Your task to perform on an android device: Search for sushi restaurants on Maps Image 0: 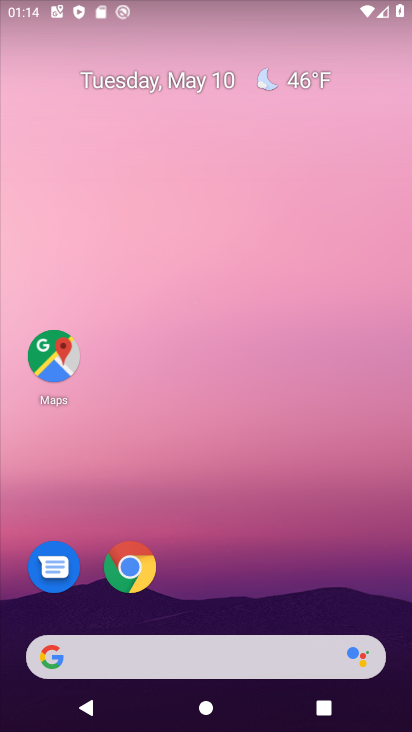
Step 0: click (64, 371)
Your task to perform on an android device: Search for sushi restaurants on Maps Image 1: 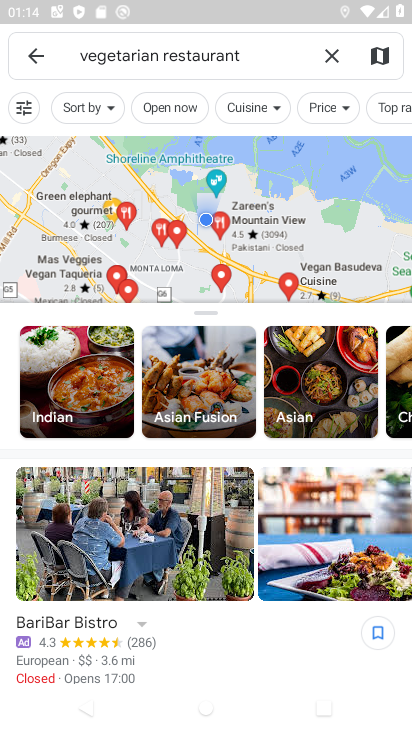
Step 1: click (332, 56)
Your task to perform on an android device: Search for sushi restaurants on Maps Image 2: 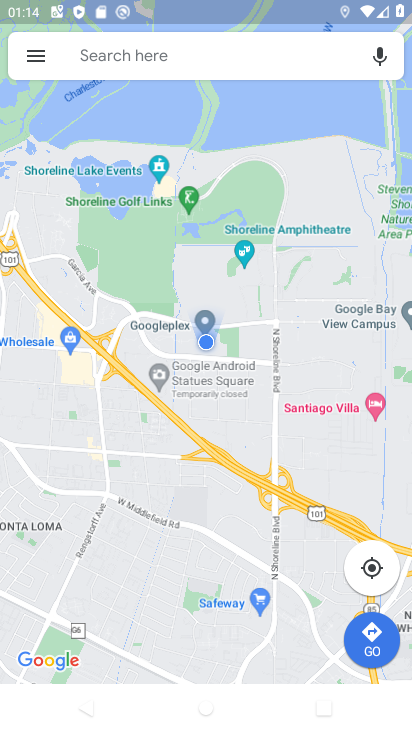
Step 2: click (161, 60)
Your task to perform on an android device: Search for sushi restaurants on Maps Image 3: 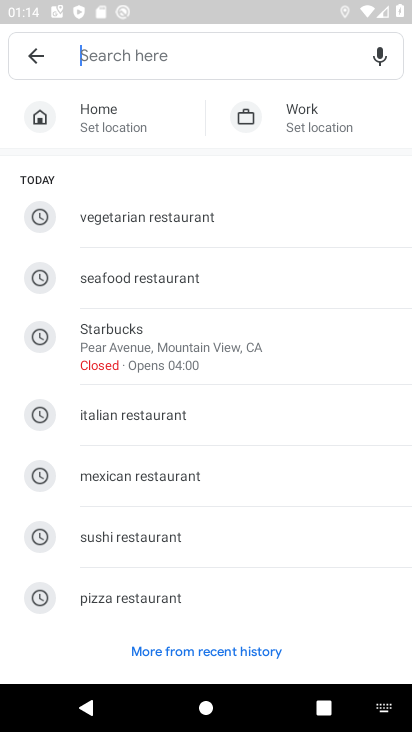
Step 3: click (177, 537)
Your task to perform on an android device: Search for sushi restaurants on Maps Image 4: 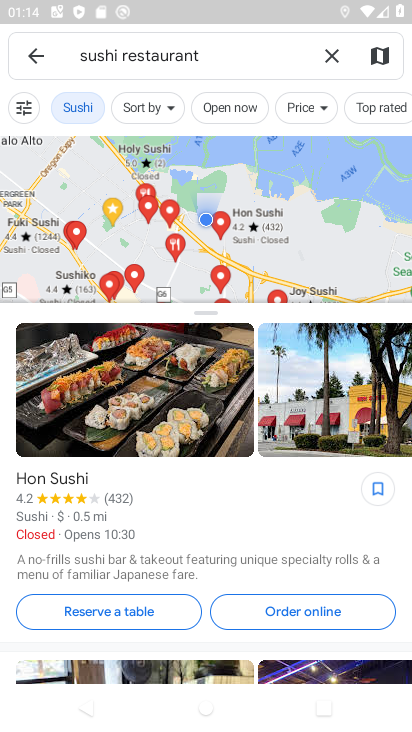
Step 4: task complete